Your task to perform on an android device: Open Yahoo.com Image 0: 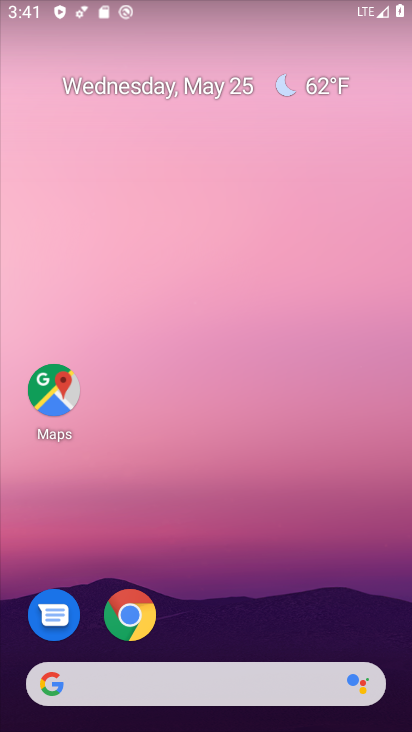
Step 0: click (134, 631)
Your task to perform on an android device: Open Yahoo.com Image 1: 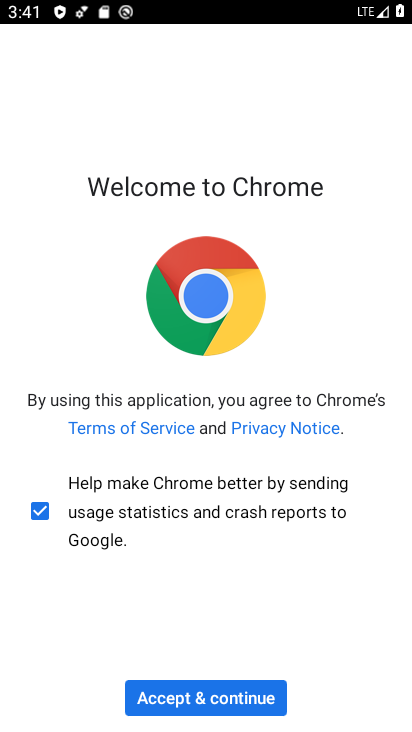
Step 1: click (237, 695)
Your task to perform on an android device: Open Yahoo.com Image 2: 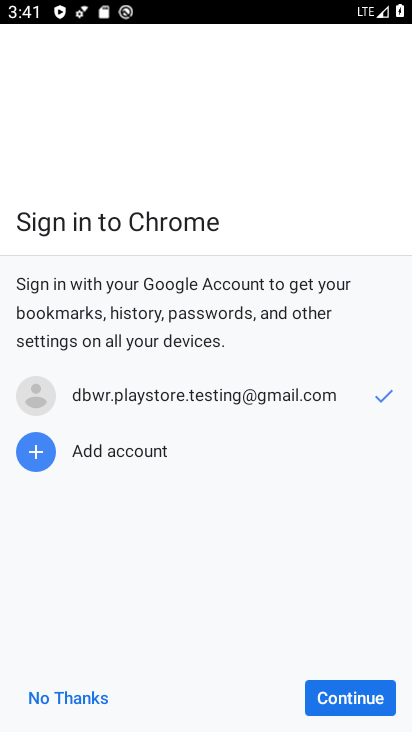
Step 2: click (369, 703)
Your task to perform on an android device: Open Yahoo.com Image 3: 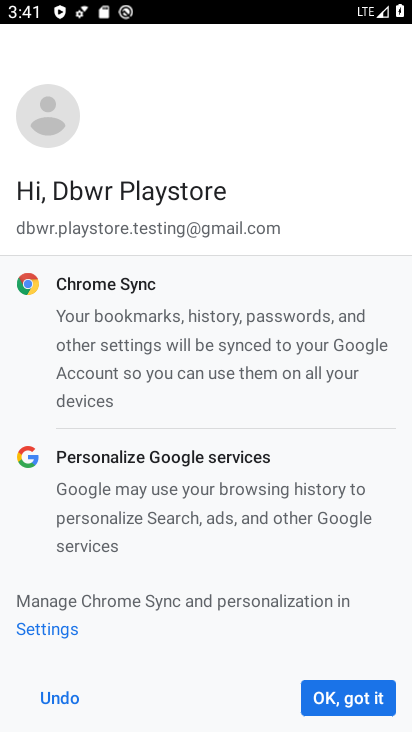
Step 3: click (364, 692)
Your task to perform on an android device: Open Yahoo.com Image 4: 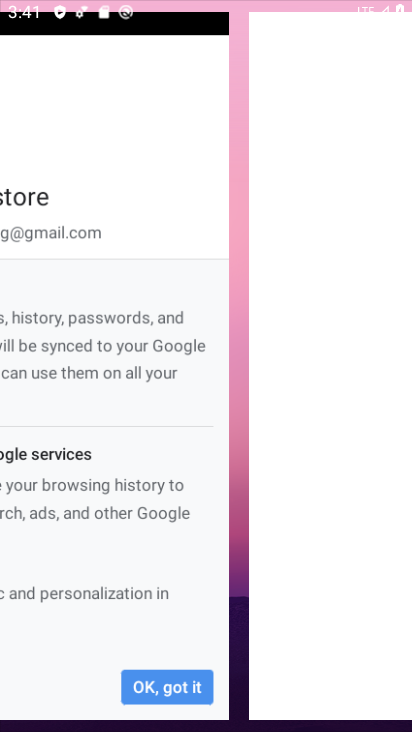
Step 4: click (362, 690)
Your task to perform on an android device: Open Yahoo.com Image 5: 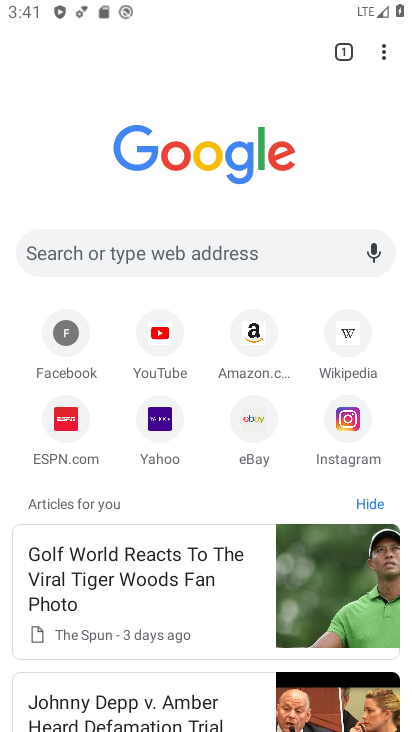
Step 5: click (159, 422)
Your task to perform on an android device: Open Yahoo.com Image 6: 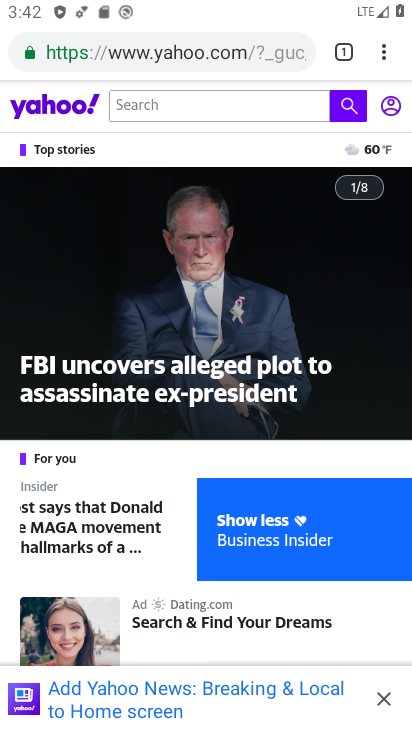
Step 6: task complete